Your task to perform on an android device: open app "Truecaller" (install if not already installed) Image 0: 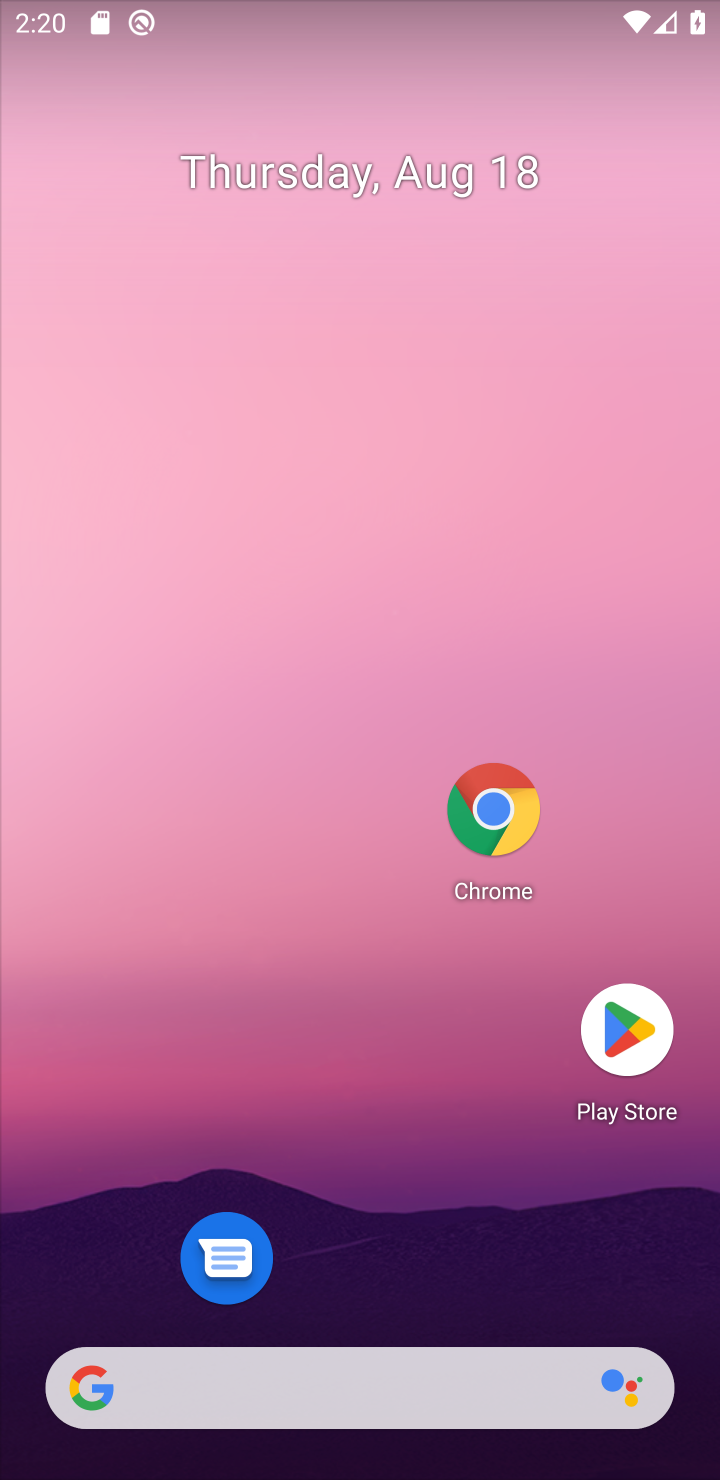
Step 0: drag from (355, 1248) to (357, 474)
Your task to perform on an android device: open app "Truecaller" (install if not already installed) Image 1: 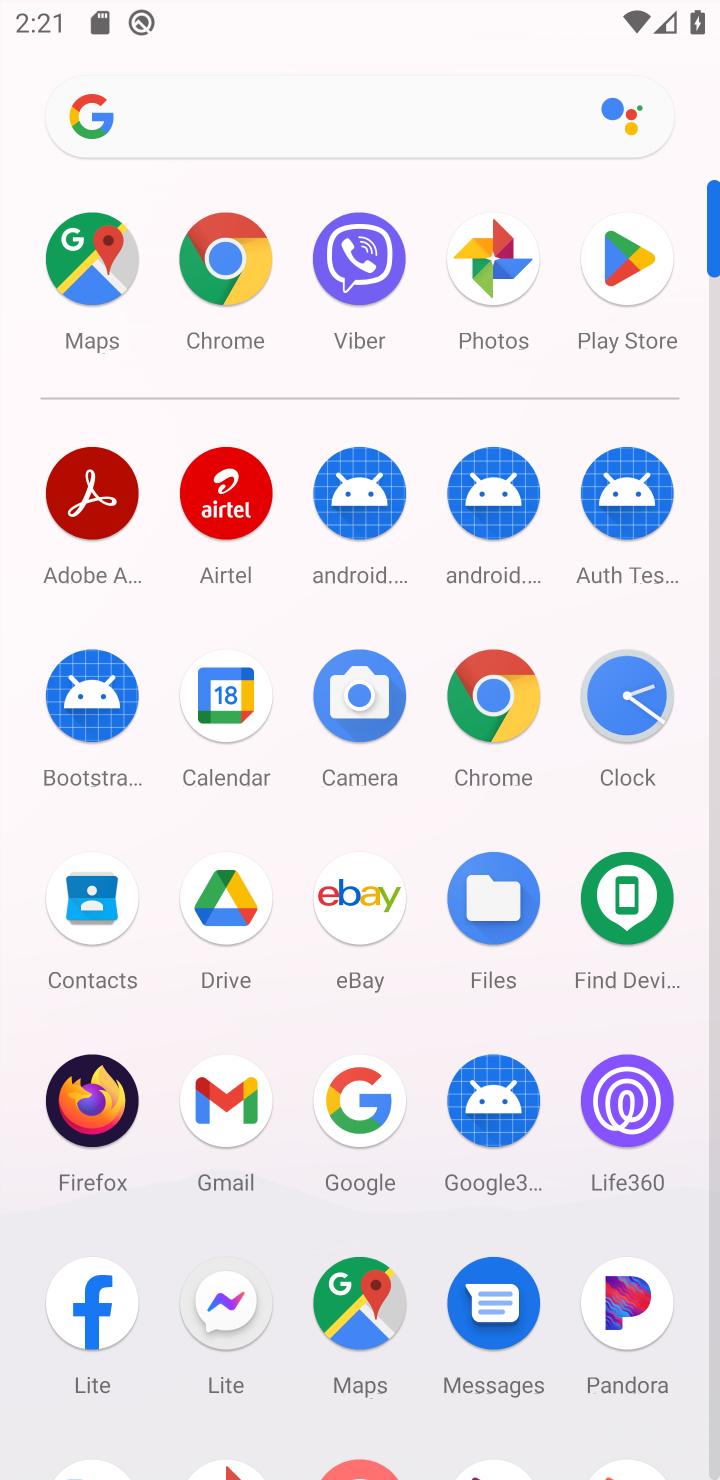
Step 1: click (616, 274)
Your task to perform on an android device: open app "Truecaller" (install if not already installed) Image 2: 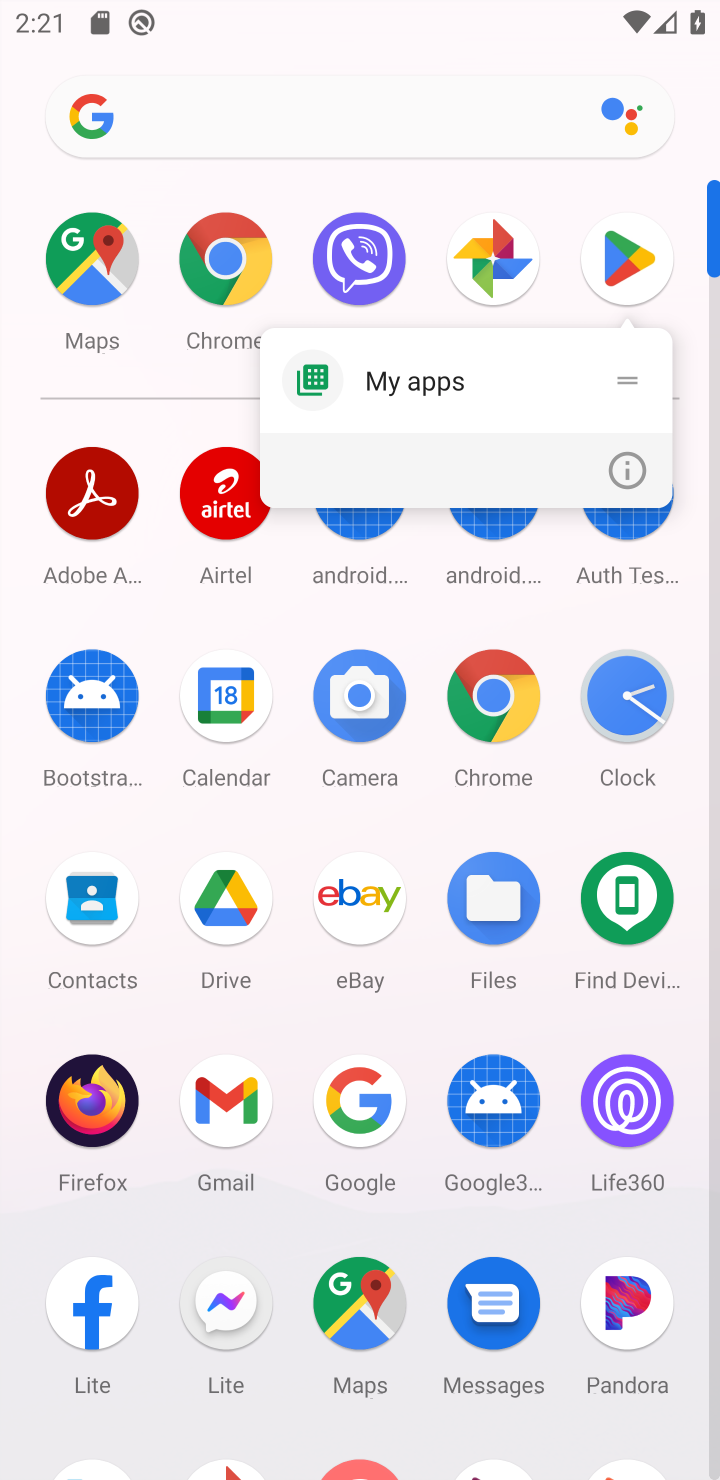
Step 2: click (616, 274)
Your task to perform on an android device: open app "Truecaller" (install if not already installed) Image 3: 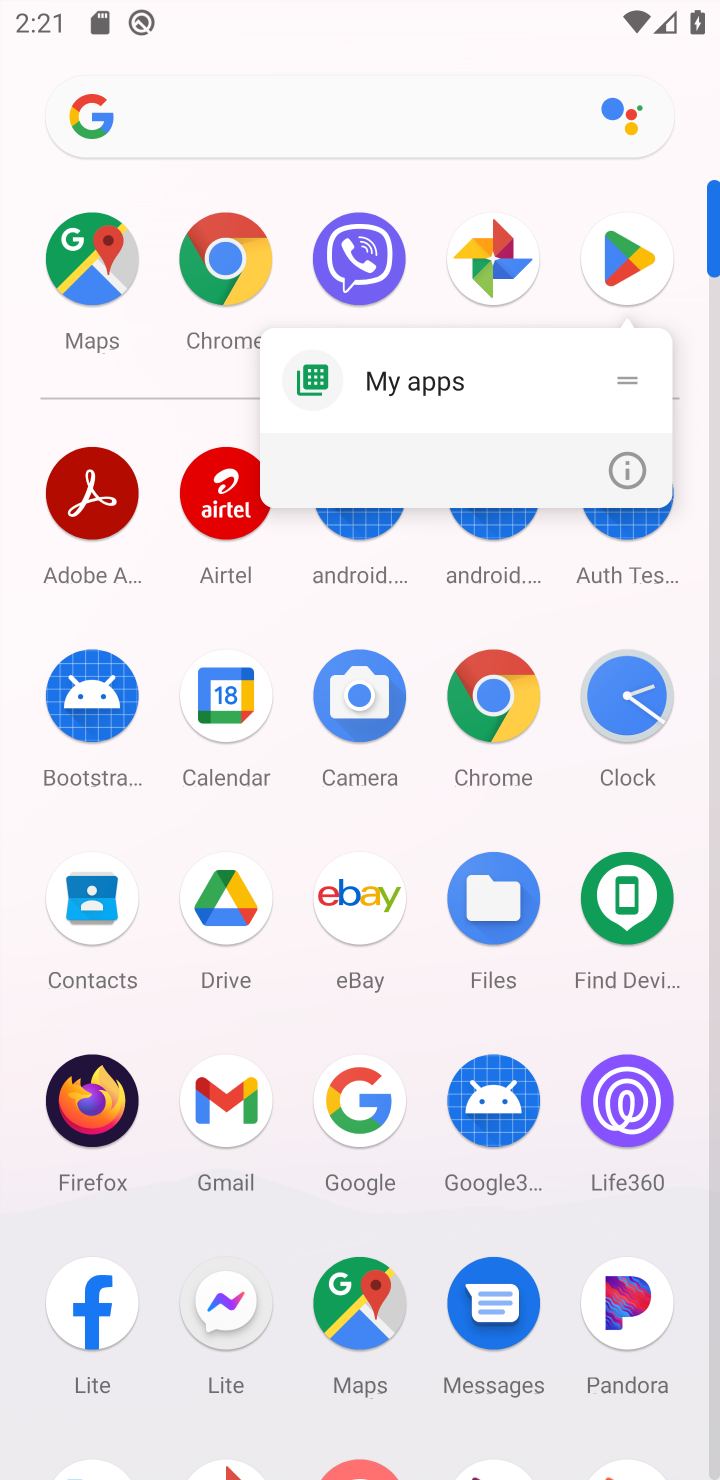
Step 3: click (616, 274)
Your task to perform on an android device: open app "Truecaller" (install if not already installed) Image 4: 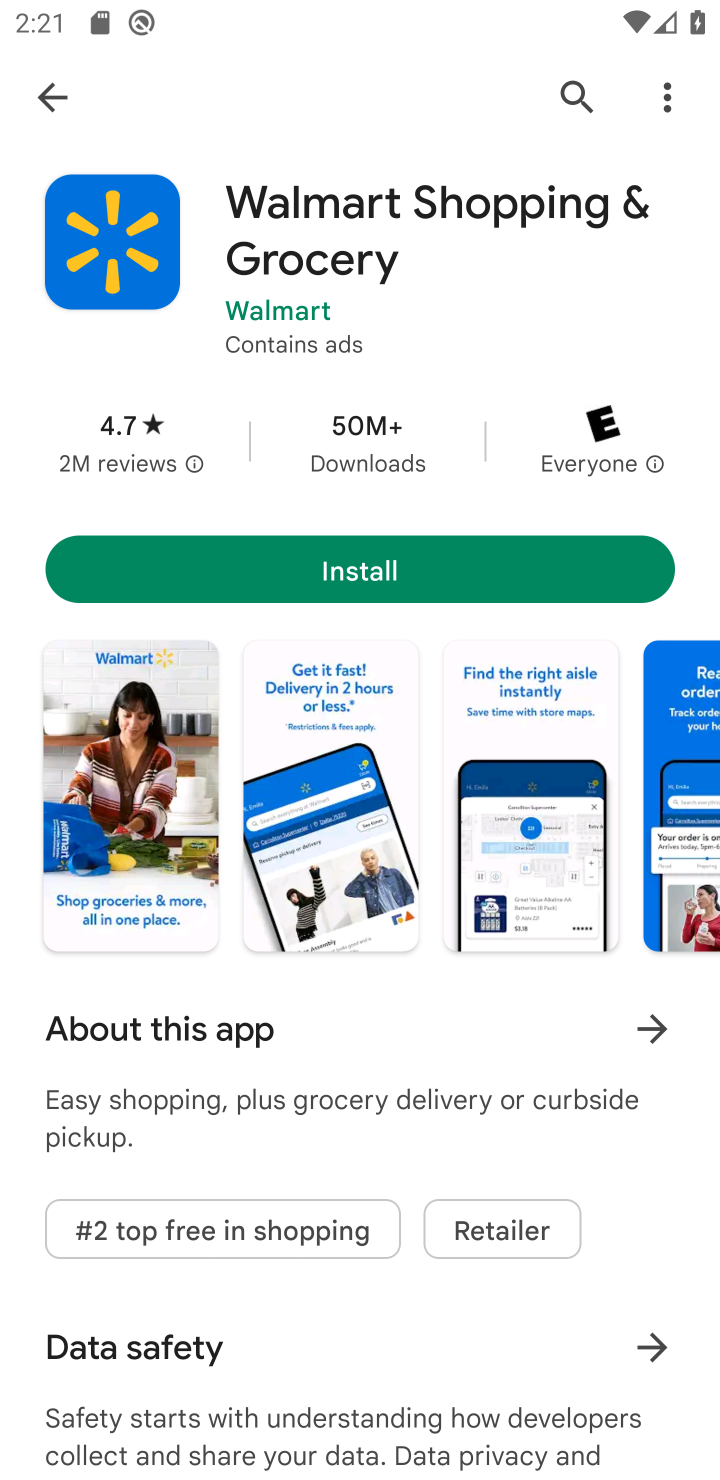
Step 4: click (51, 98)
Your task to perform on an android device: open app "Truecaller" (install if not already installed) Image 5: 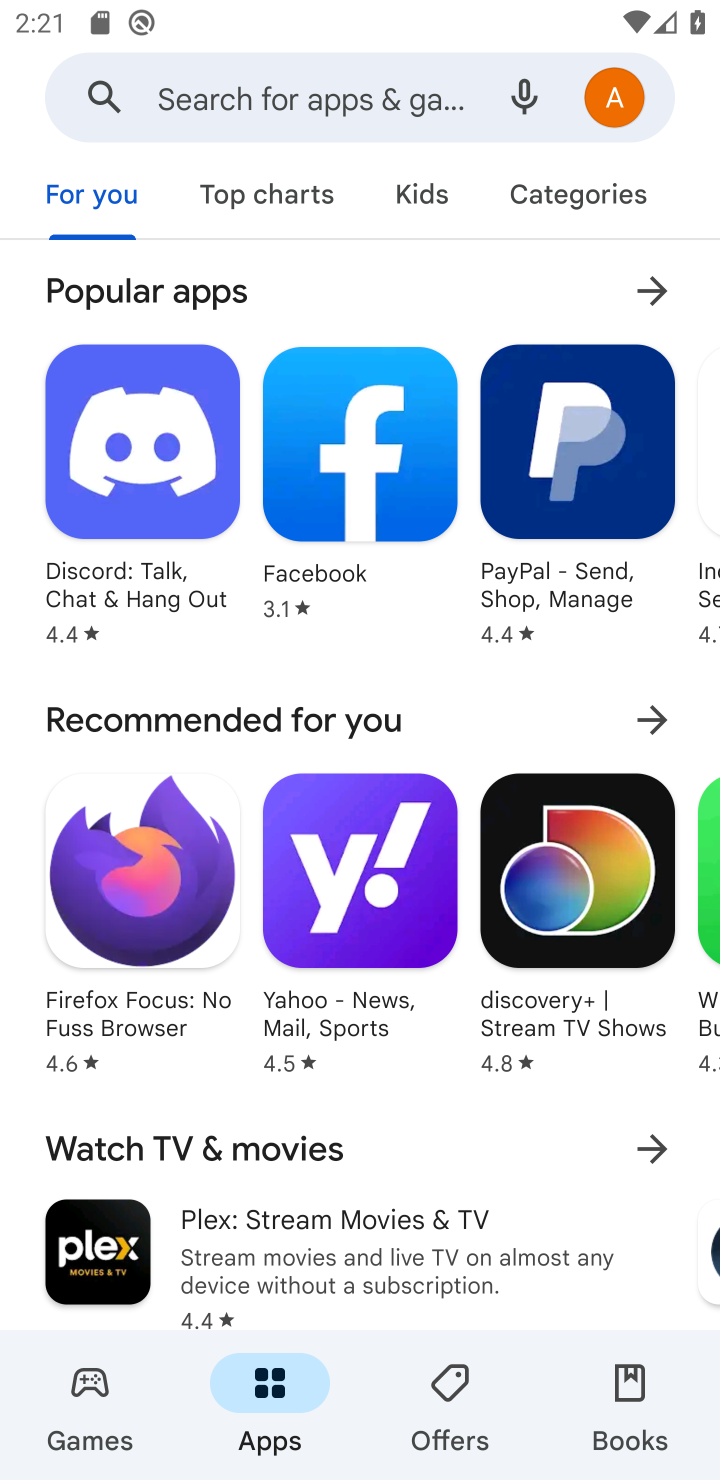
Step 5: click (296, 74)
Your task to perform on an android device: open app "Truecaller" (install if not already installed) Image 6: 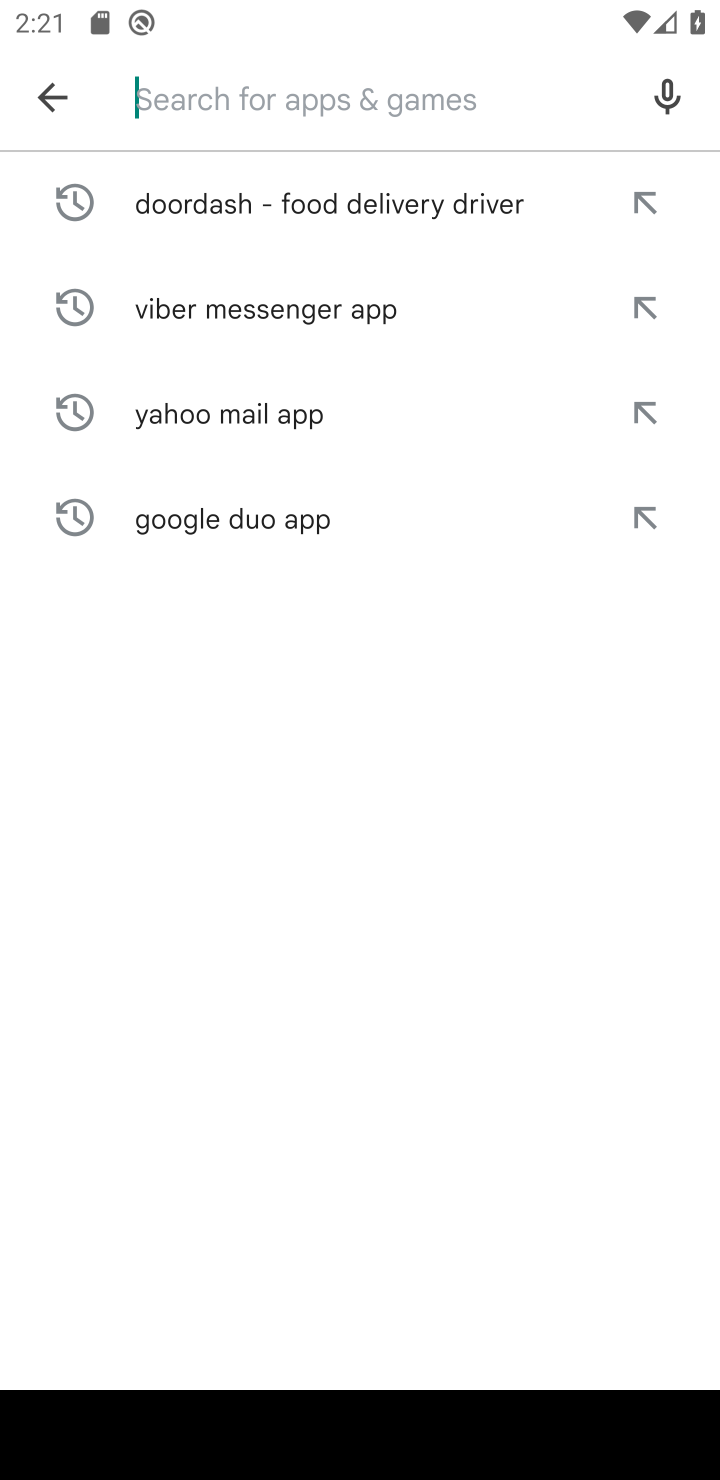
Step 6: type "truecallerr "
Your task to perform on an android device: open app "Truecaller" (install if not already installed) Image 7: 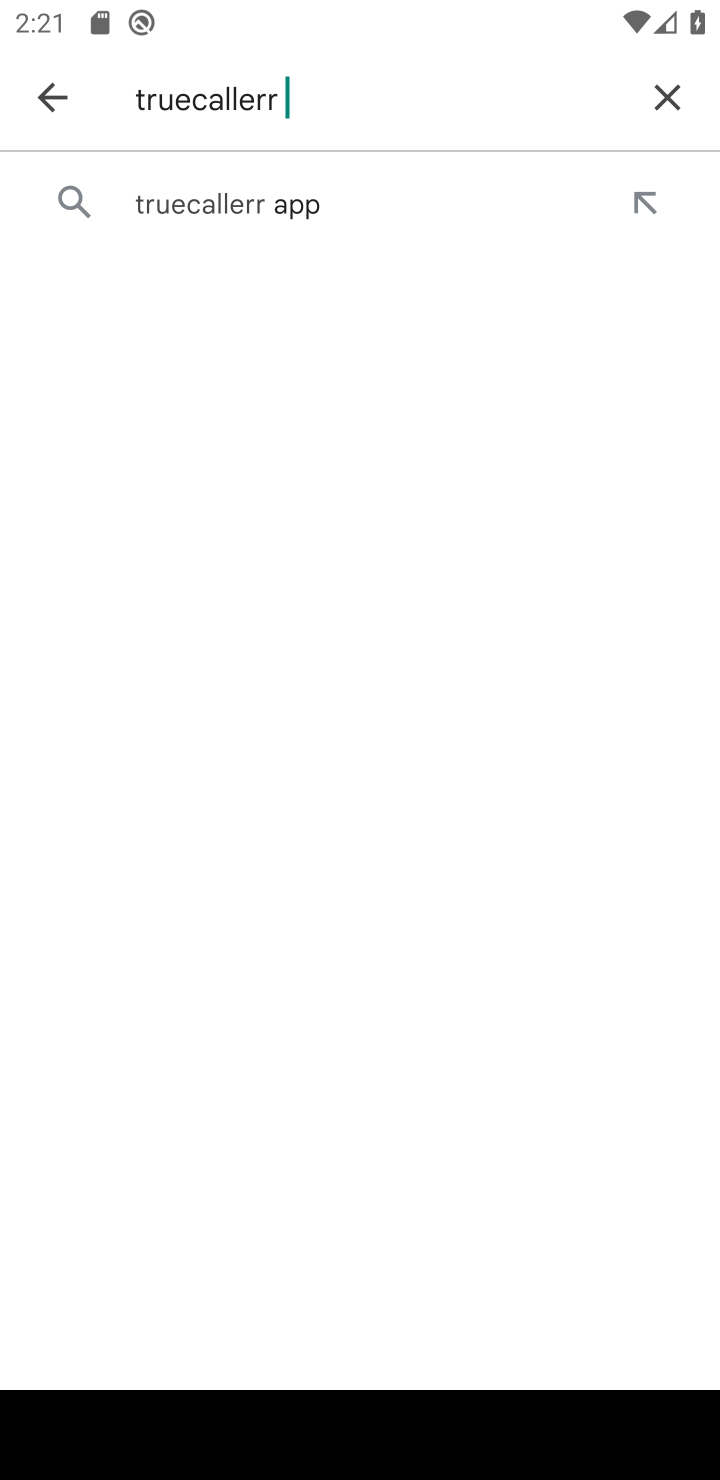
Step 7: click (242, 208)
Your task to perform on an android device: open app "Truecaller" (install if not already installed) Image 8: 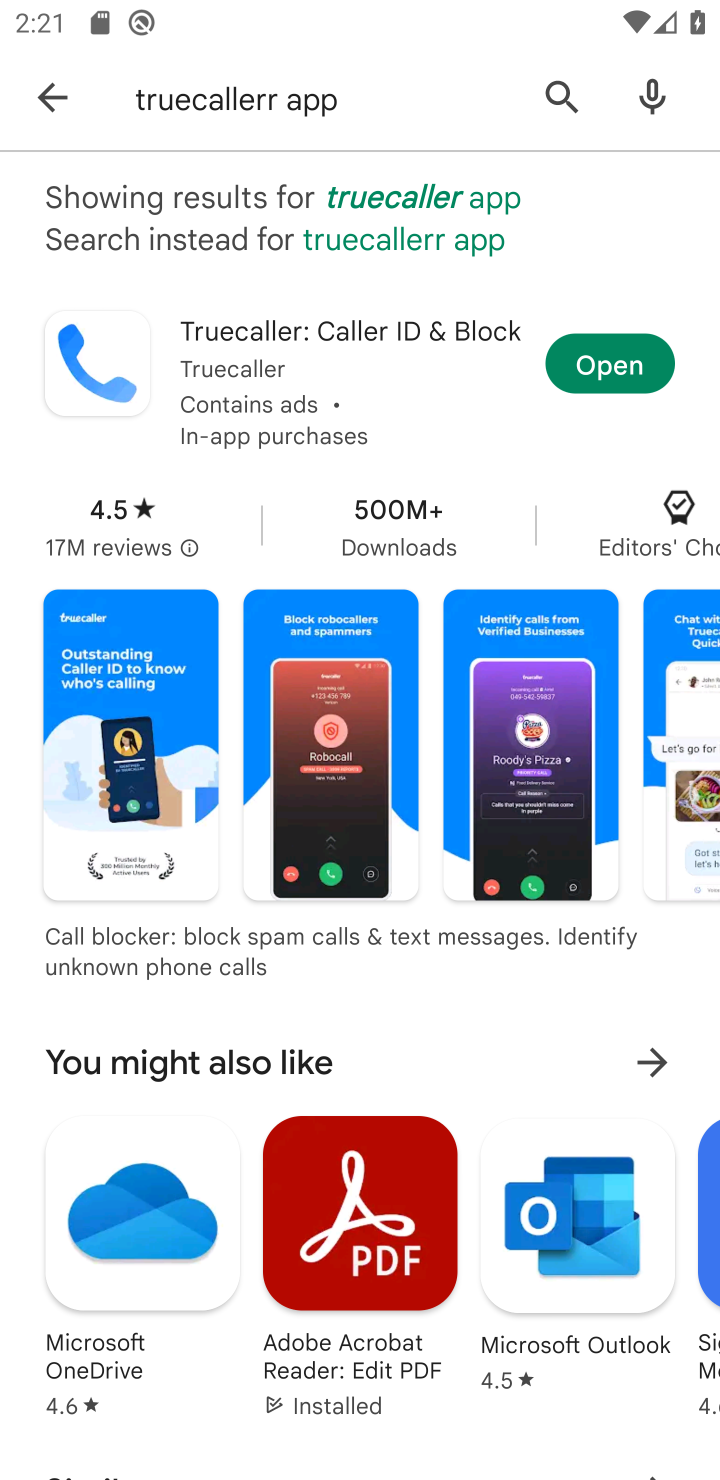
Step 8: click (575, 331)
Your task to perform on an android device: open app "Truecaller" (install if not already installed) Image 9: 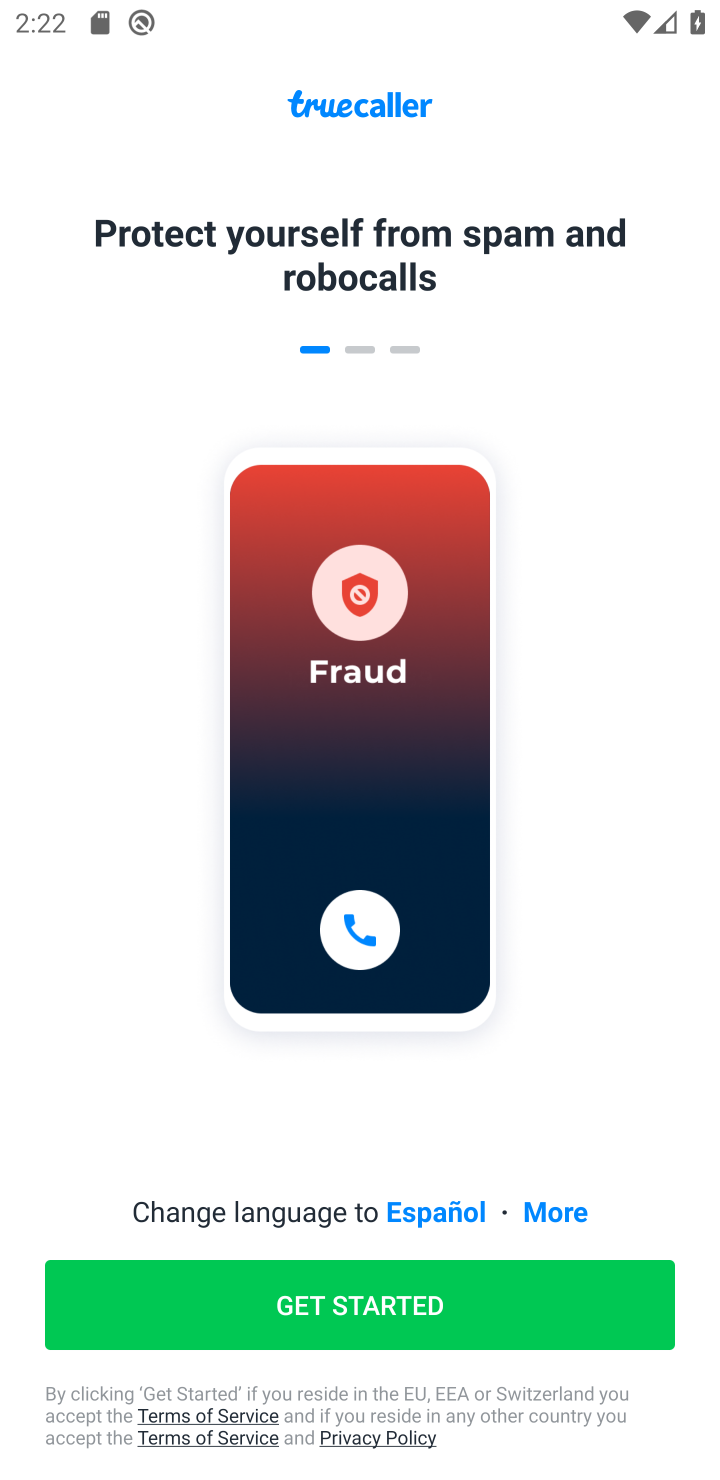
Step 9: task complete